Your task to perform on an android device: Go to calendar. Show me events next week Image 0: 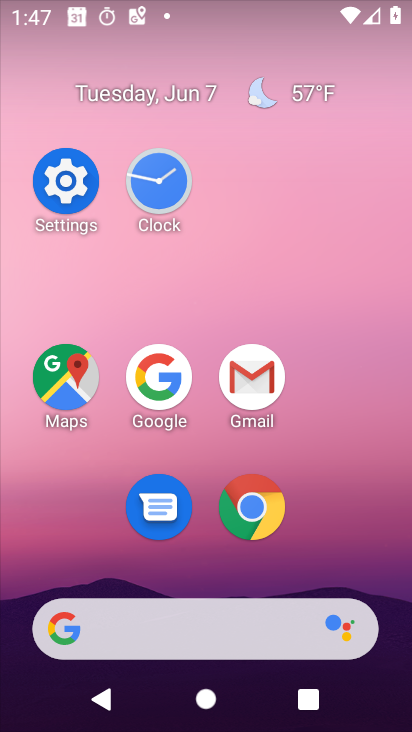
Step 0: drag from (346, 492) to (272, 87)
Your task to perform on an android device: Go to calendar. Show me events next week Image 1: 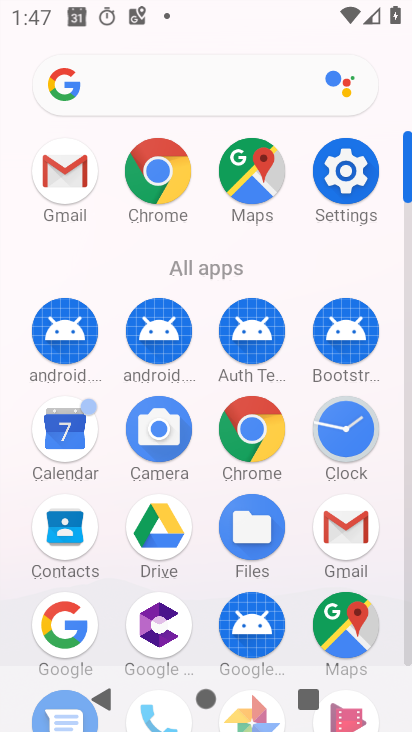
Step 1: drag from (55, 425) to (244, 213)
Your task to perform on an android device: Go to calendar. Show me events next week Image 2: 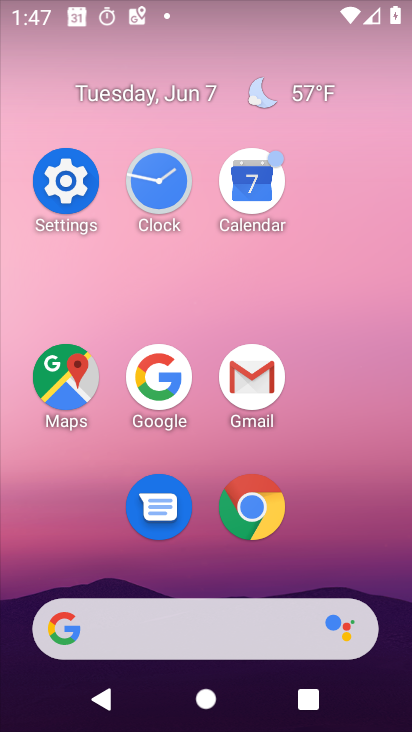
Step 2: click (250, 208)
Your task to perform on an android device: Go to calendar. Show me events next week Image 3: 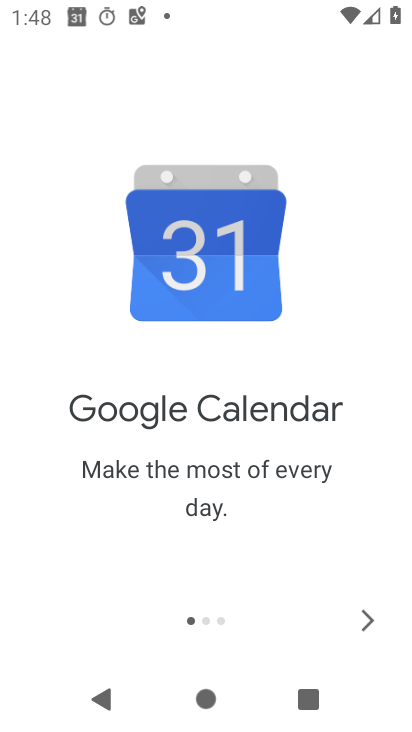
Step 3: click (383, 620)
Your task to perform on an android device: Go to calendar. Show me events next week Image 4: 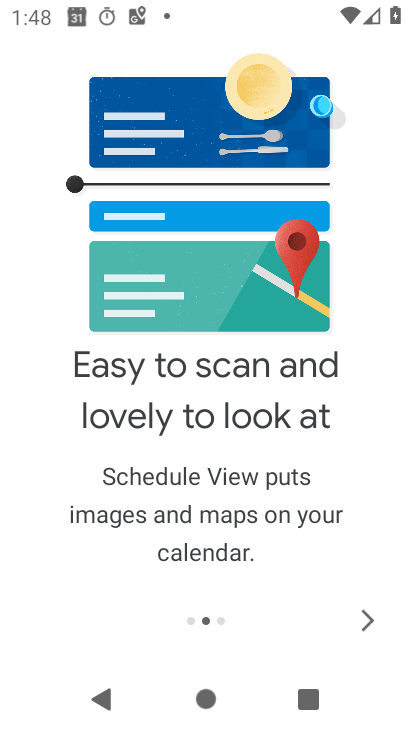
Step 4: click (383, 620)
Your task to perform on an android device: Go to calendar. Show me events next week Image 5: 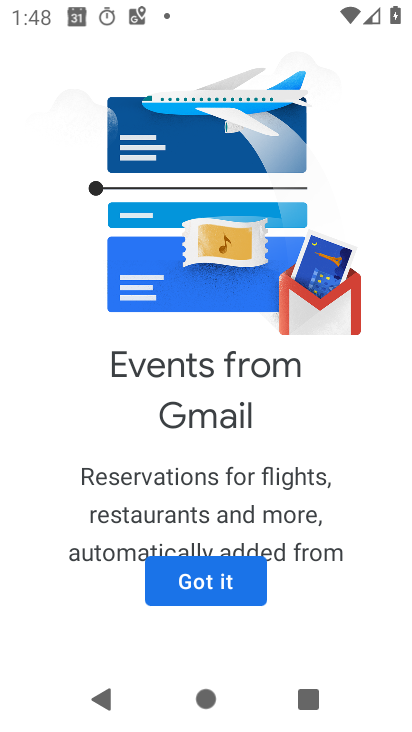
Step 5: click (383, 620)
Your task to perform on an android device: Go to calendar. Show me events next week Image 6: 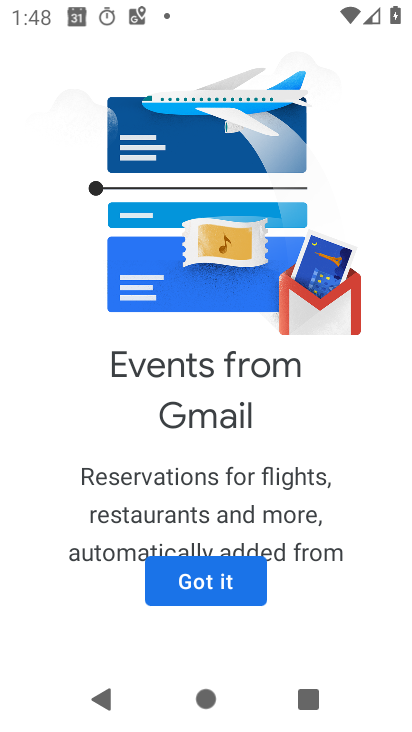
Step 6: click (245, 578)
Your task to perform on an android device: Go to calendar. Show me events next week Image 7: 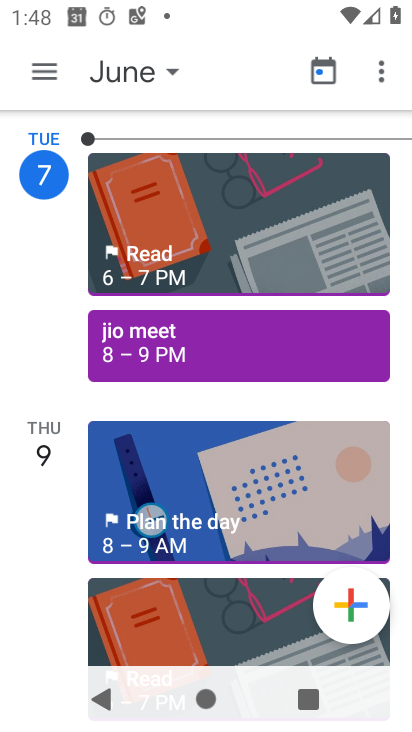
Step 7: click (34, 72)
Your task to perform on an android device: Go to calendar. Show me events next week Image 8: 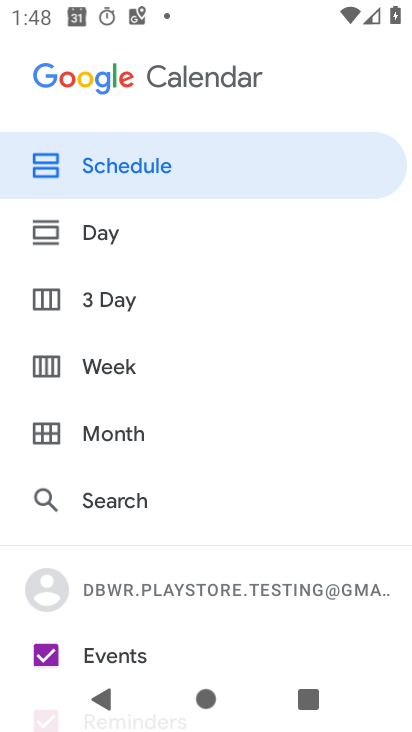
Step 8: click (141, 365)
Your task to perform on an android device: Go to calendar. Show me events next week Image 9: 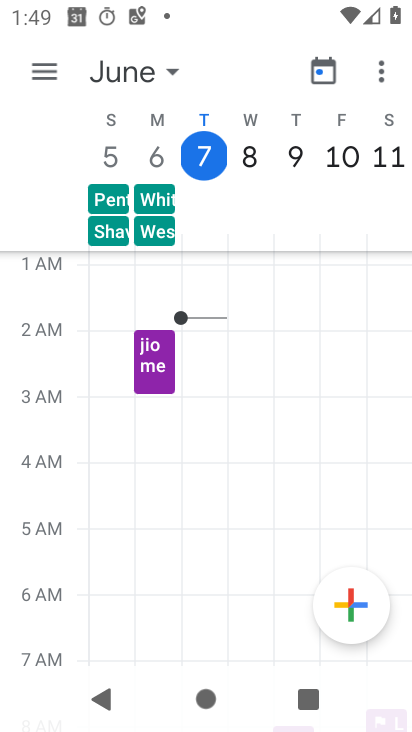
Step 9: click (39, 75)
Your task to perform on an android device: Go to calendar. Show me events next week Image 10: 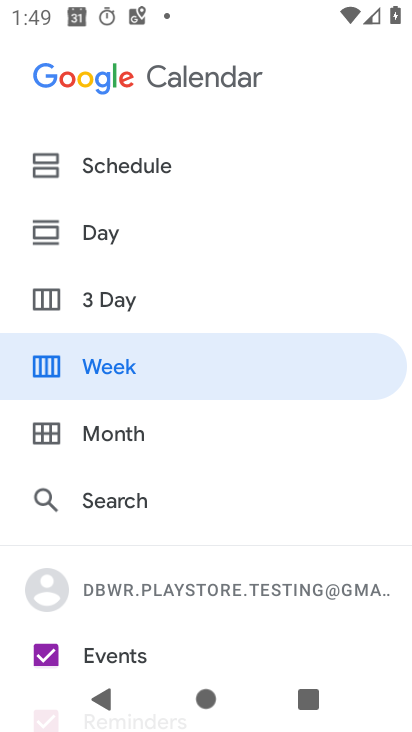
Step 10: click (135, 386)
Your task to perform on an android device: Go to calendar. Show me events next week Image 11: 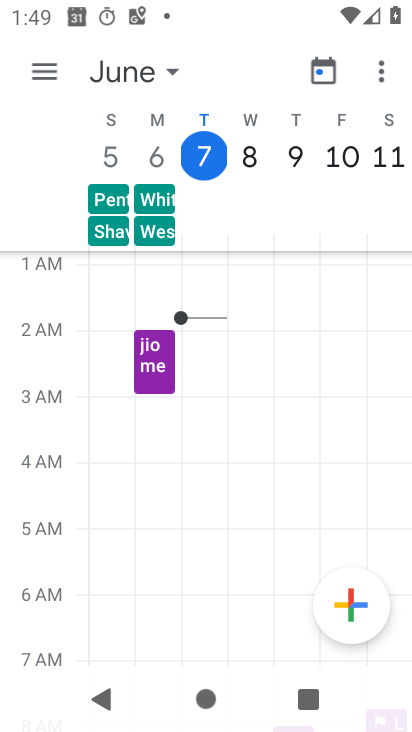
Step 11: task complete